Your task to perform on an android device: turn on priority inbox in the gmail app Image 0: 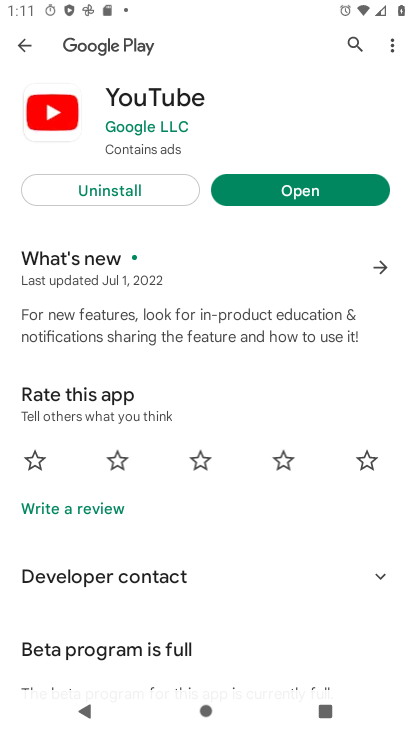
Step 0: press home button
Your task to perform on an android device: turn on priority inbox in the gmail app Image 1: 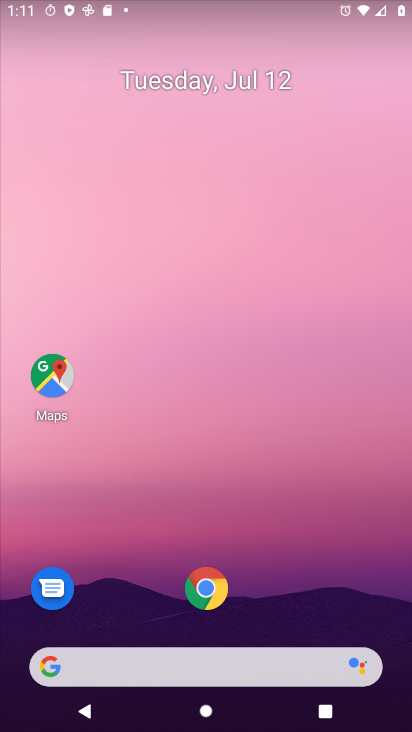
Step 1: drag from (169, 664) to (289, 125)
Your task to perform on an android device: turn on priority inbox in the gmail app Image 2: 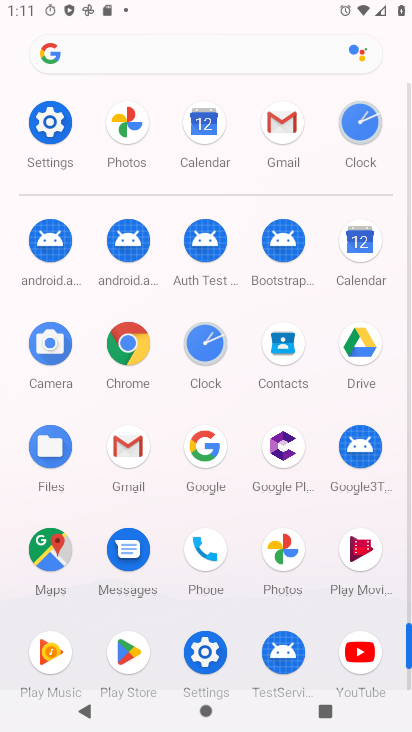
Step 2: click (287, 130)
Your task to perform on an android device: turn on priority inbox in the gmail app Image 3: 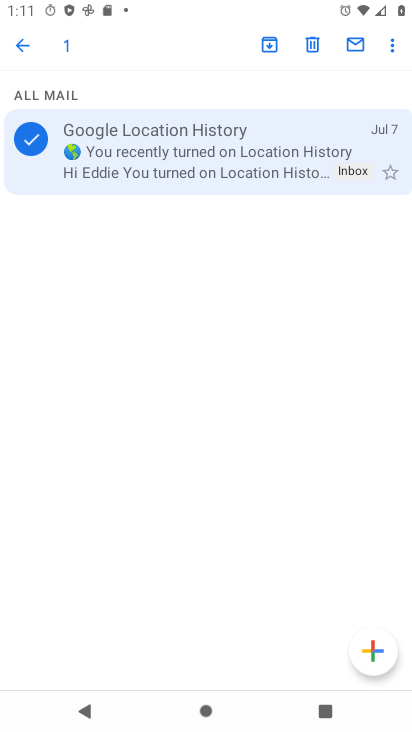
Step 3: click (30, 145)
Your task to perform on an android device: turn on priority inbox in the gmail app Image 4: 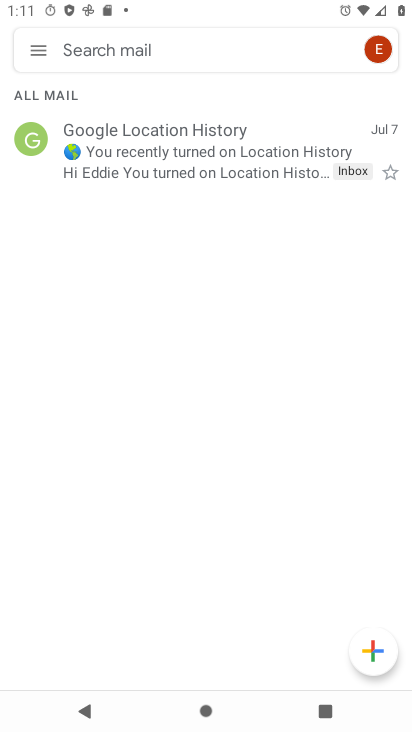
Step 4: click (19, 51)
Your task to perform on an android device: turn on priority inbox in the gmail app Image 5: 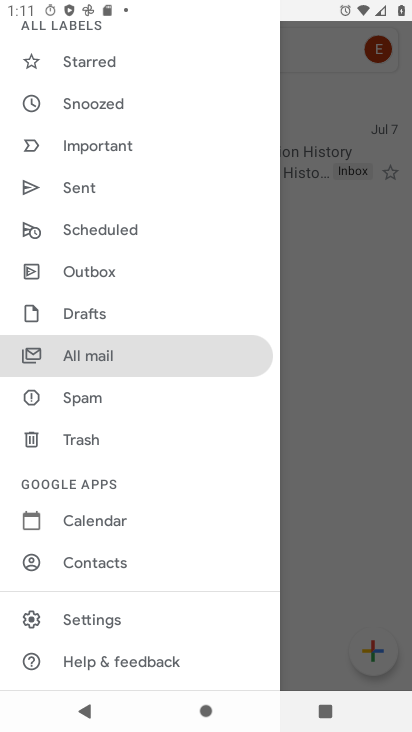
Step 5: drag from (132, 588) to (241, 87)
Your task to perform on an android device: turn on priority inbox in the gmail app Image 6: 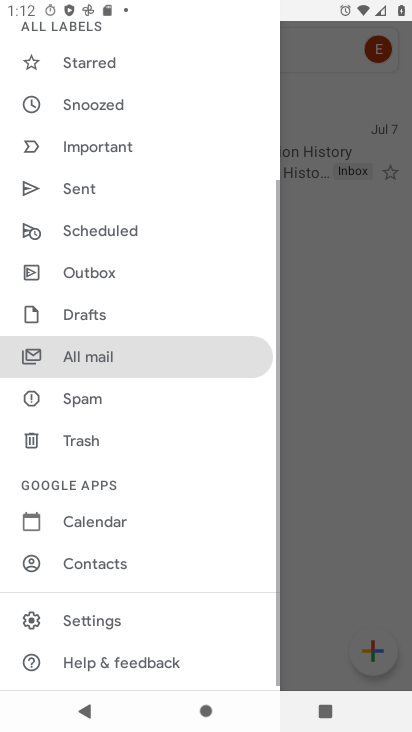
Step 6: click (91, 616)
Your task to perform on an android device: turn on priority inbox in the gmail app Image 7: 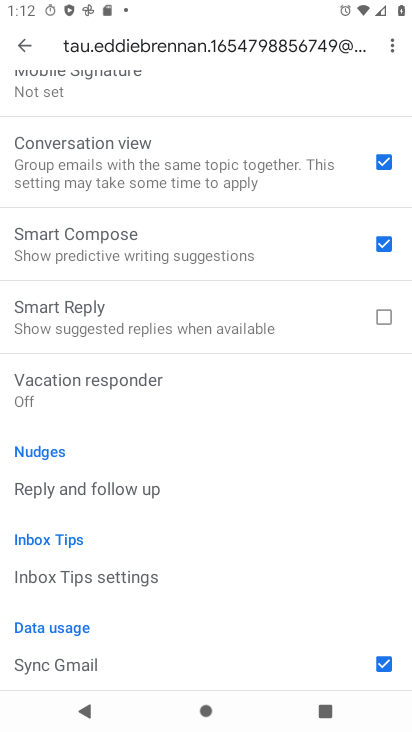
Step 7: drag from (229, 100) to (222, 721)
Your task to perform on an android device: turn on priority inbox in the gmail app Image 8: 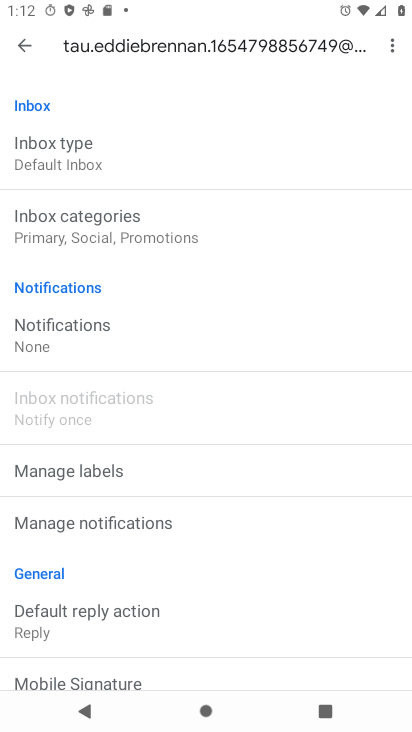
Step 8: click (79, 152)
Your task to perform on an android device: turn on priority inbox in the gmail app Image 9: 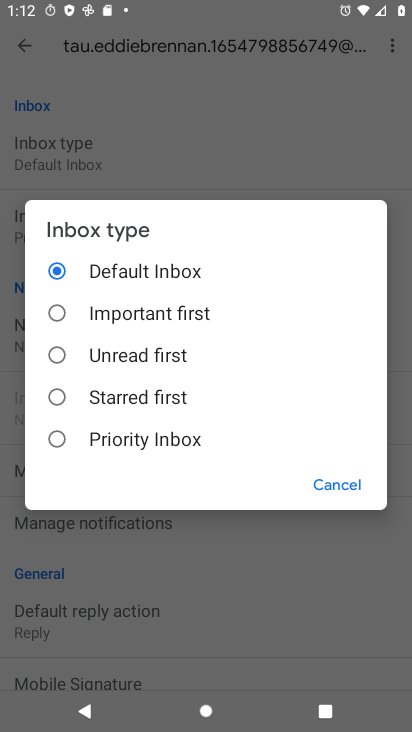
Step 9: click (62, 440)
Your task to perform on an android device: turn on priority inbox in the gmail app Image 10: 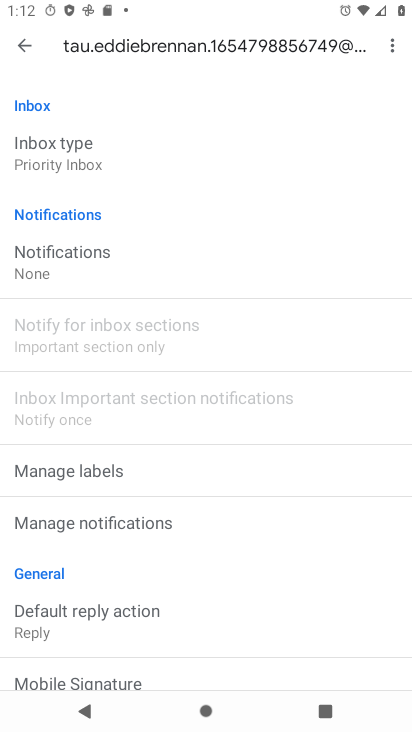
Step 10: task complete